Your task to perform on an android device: Open Google Chrome and click the shortcut for Amazon.com Image 0: 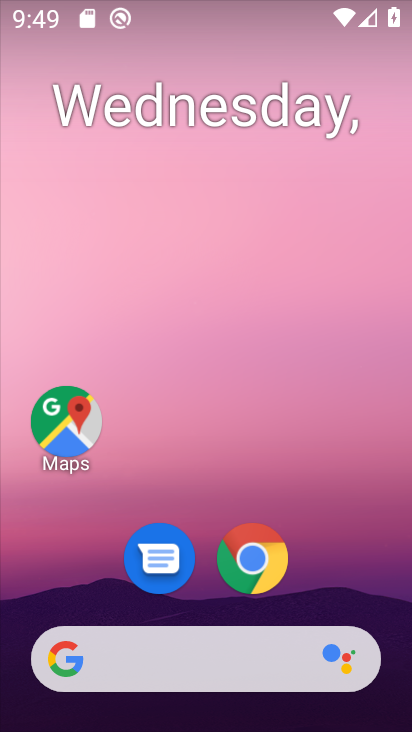
Step 0: drag from (338, 584) to (335, 103)
Your task to perform on an android device: Open Google Chrome and click the shortcut for Amazon.com Image 1: 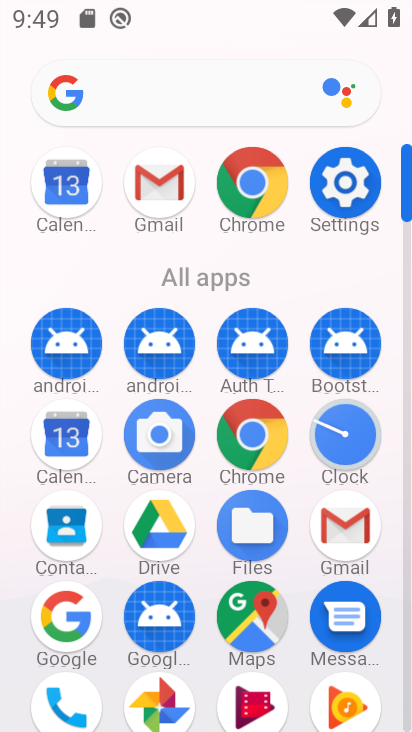
Step 1: click (258, 438)
Your task to perform on an android device: Open Google Chrome and click the shortcut for Amazon.com Image 2: 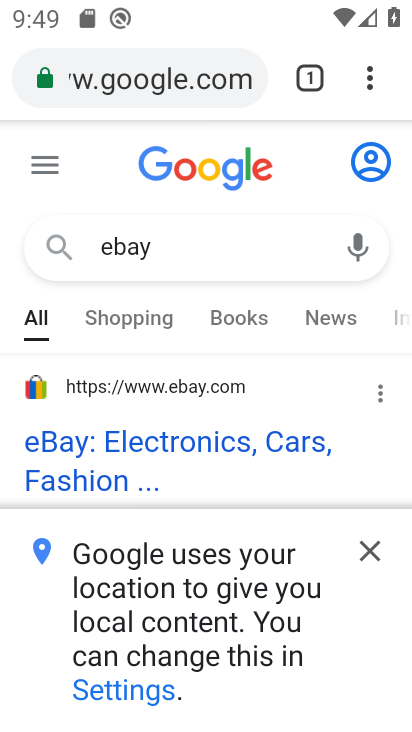
Step 2: press back button
Your task to perform on an android device: Open Google Chrome and click the shortcut for Amazon.com Image 3: 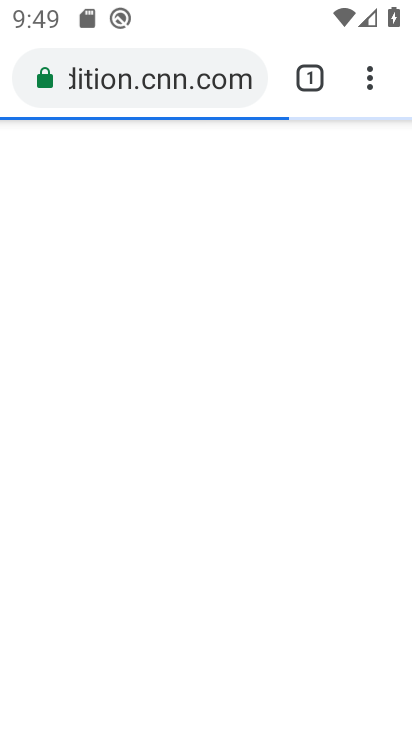
Step 3: press back button
Your task to perform on an android device: Open Google Chrome and click the shortcut for Amazon.com Image 4: 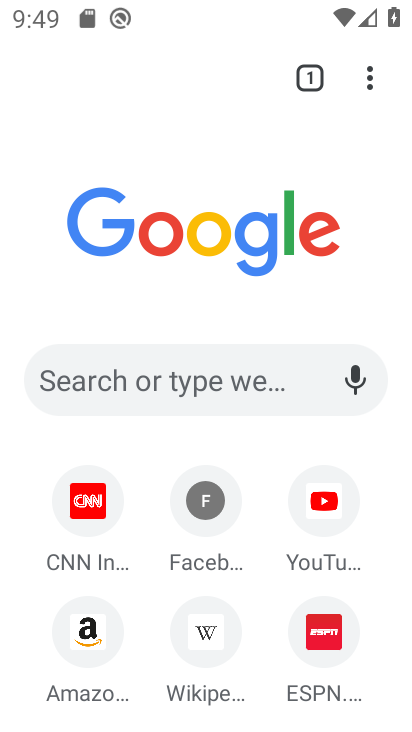
Step 4: press back button
Your task to perform on an android device: Open Google Chrome and click the shortcut for Amazon.com Image 5: 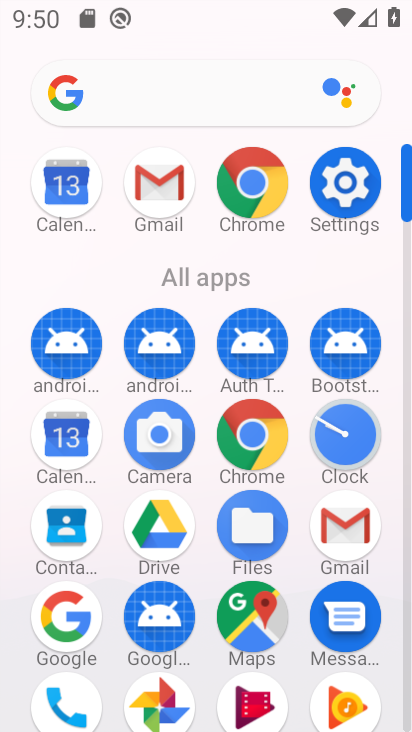
Step 5: click (259, 432)
Your task to perform on an android device: Open Google Chrome and click the shortcut for Amazon.com Image 6: 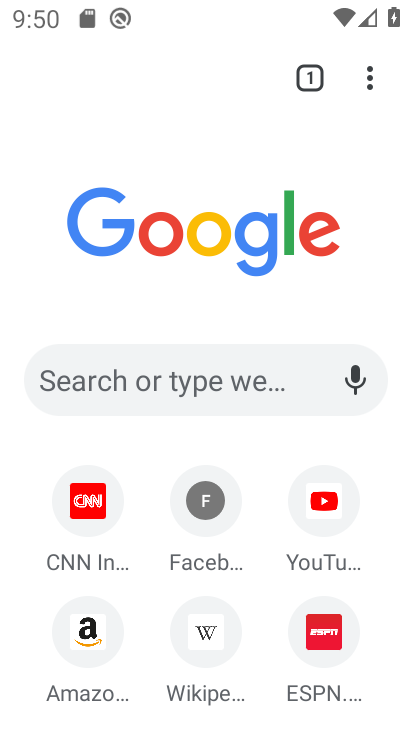
Step 6: click (89, 639)
Your task to perform on an android device: Open Google Chrome and click the shortcut for Amazon.com Image 7: 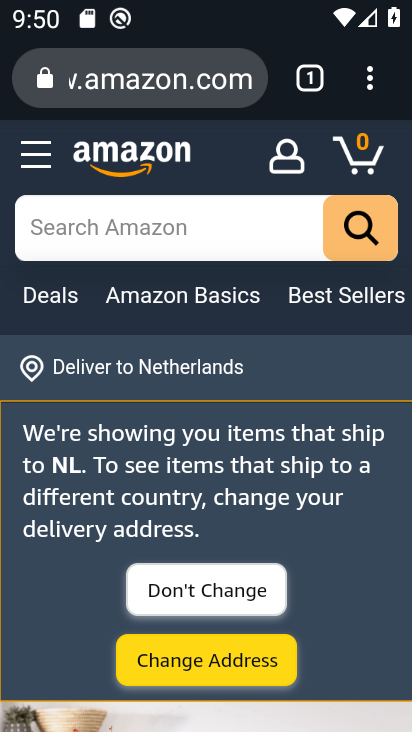
Step 7: task complete